Your task to perform on an android device: set the stopwatch Image 0: 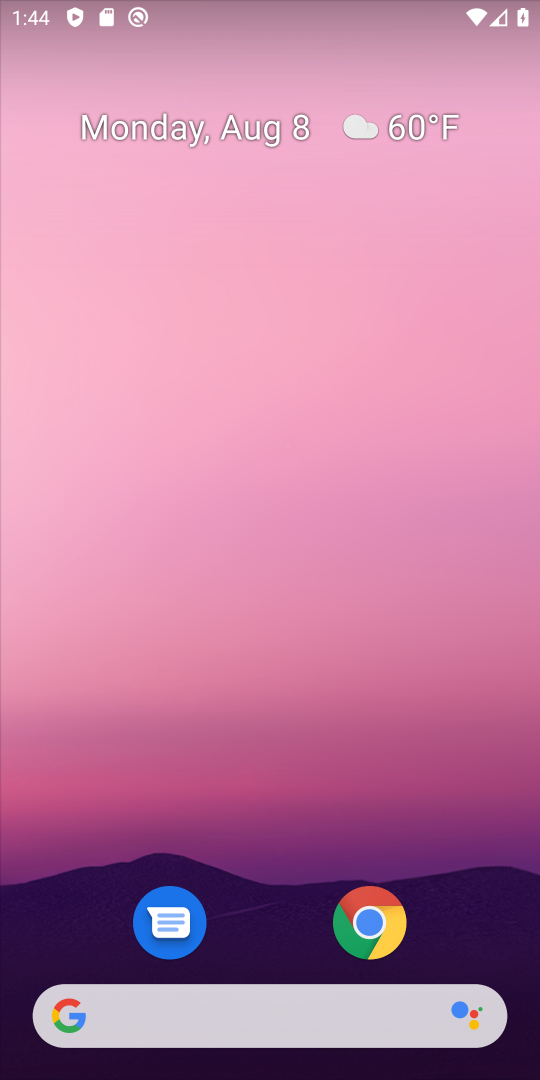
Step 0: drag from (432, 893) to (416, 178)
Your task to perform on an android device: set the stopwatch Image 1: 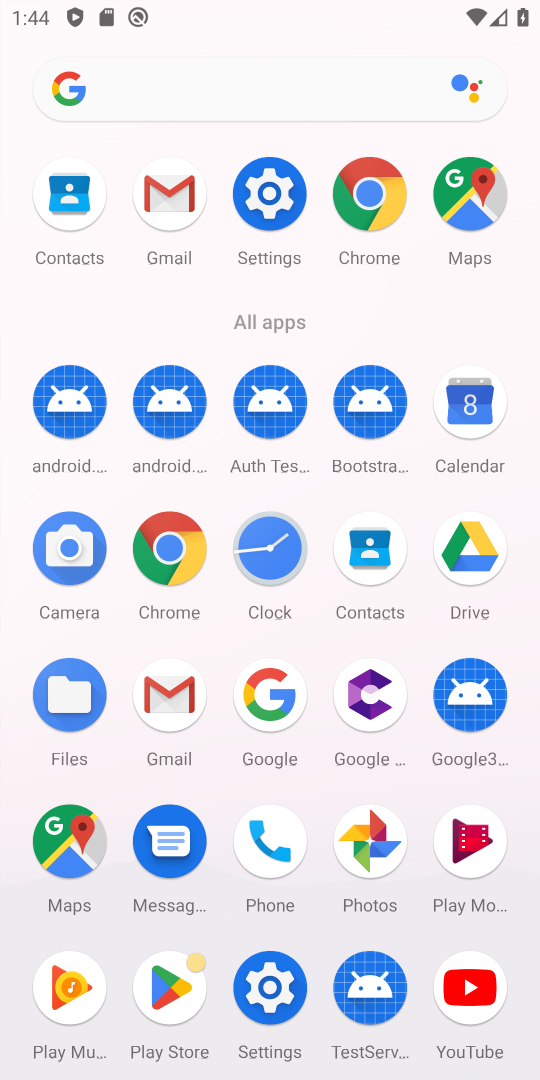
Step 1: click (258, 553)
Your task to perform on an android device: set the stopwatch Image 2: 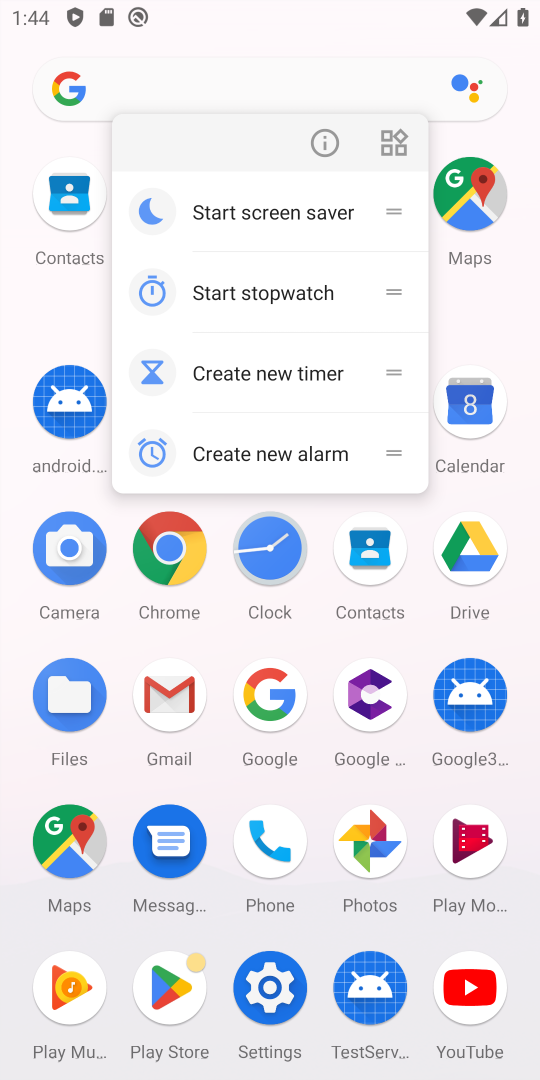
Step 2: click (260, 526)
Your task to perform on an android device: set the stopwatch Image 3: 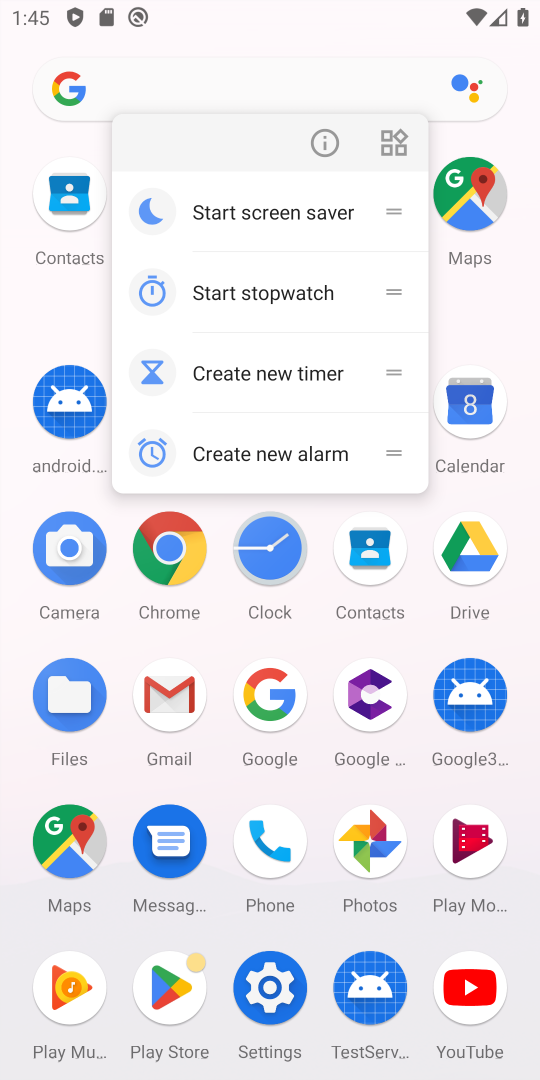
Step 3: click (275, 564)
Your task to perform on an android device: set the stopwatch Image 4: 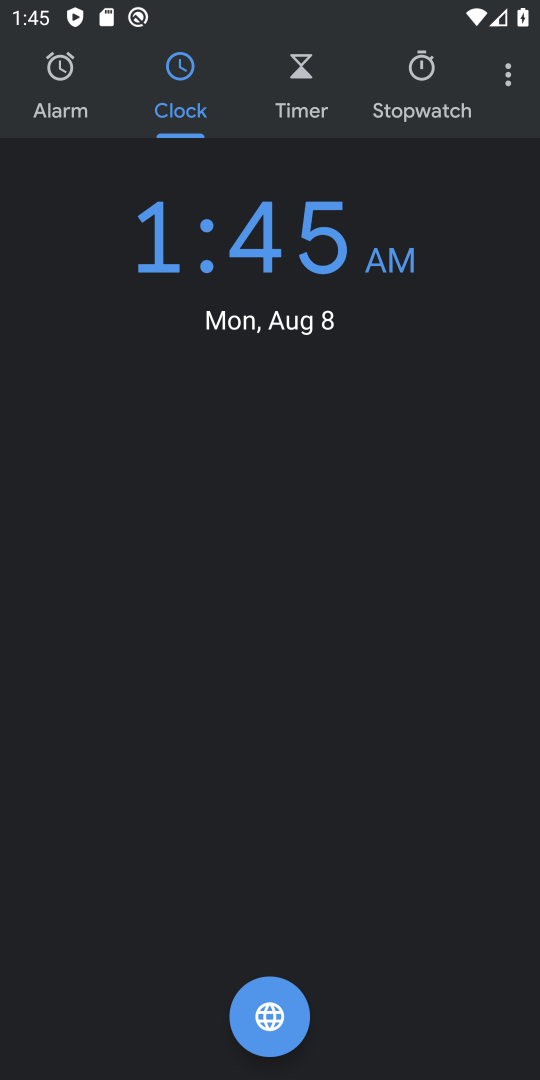
Step 4: click (448, 97)
Your task to perform on an android device: set the stopwatch Image 5: 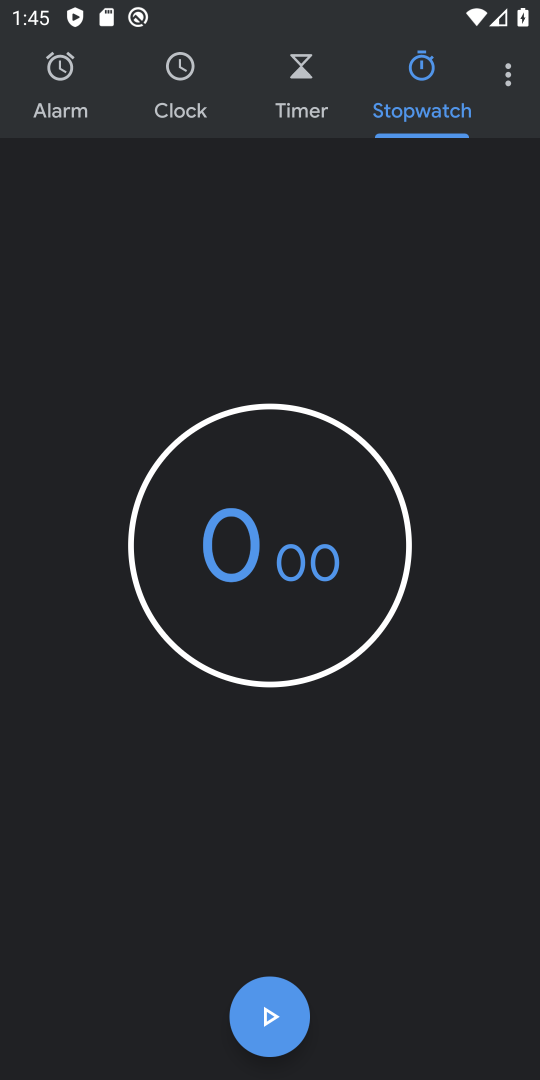
Step 5: click (285, 1004)
Your task to perform on an android device: set the stopwatch Image 6: 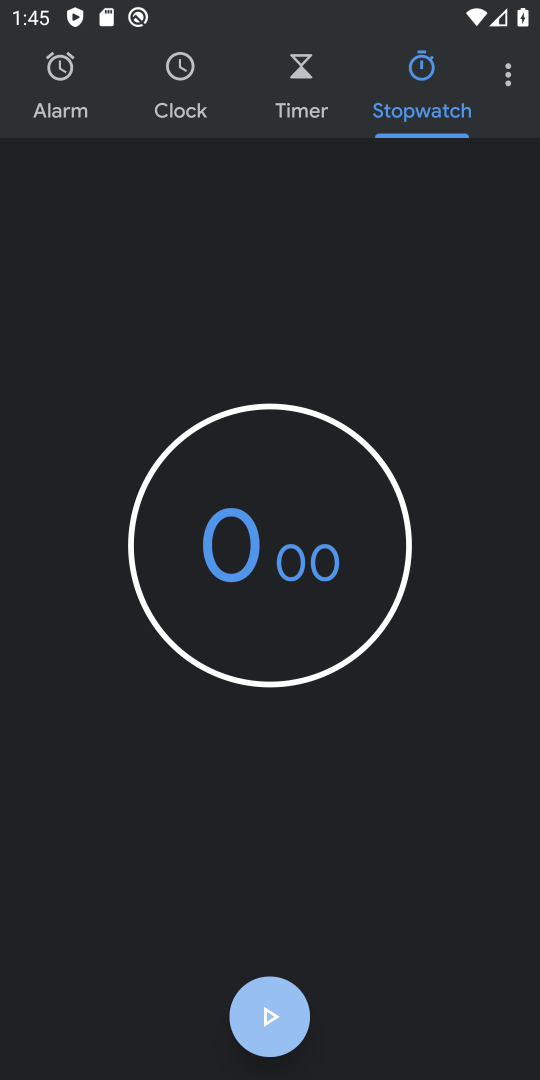
Step 6: click (267, 1002)
Your task to perform on an android device: set the stopwatch Image 7: 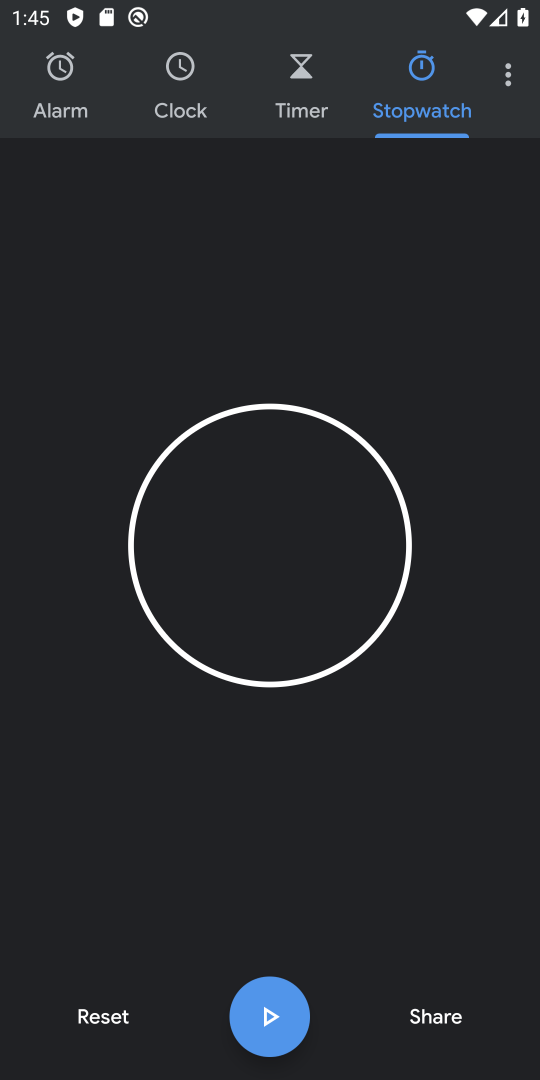
Step 7: click (271, 990)
Your task to perform on an android device: set the stopwatch Image 8: 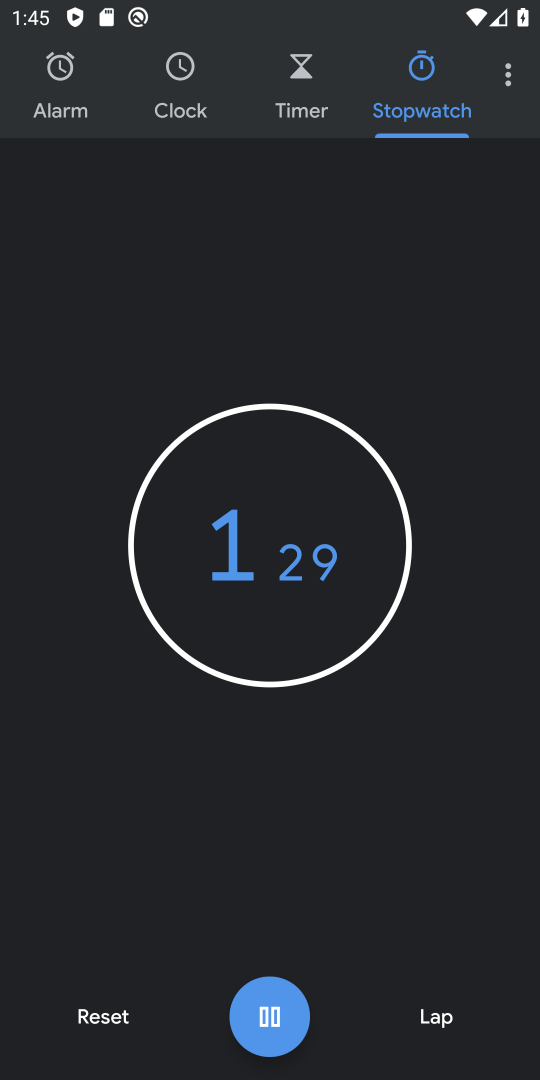
Step 8: task complete